Your task to perform on an android device: open chrome privacy settings Image 0: 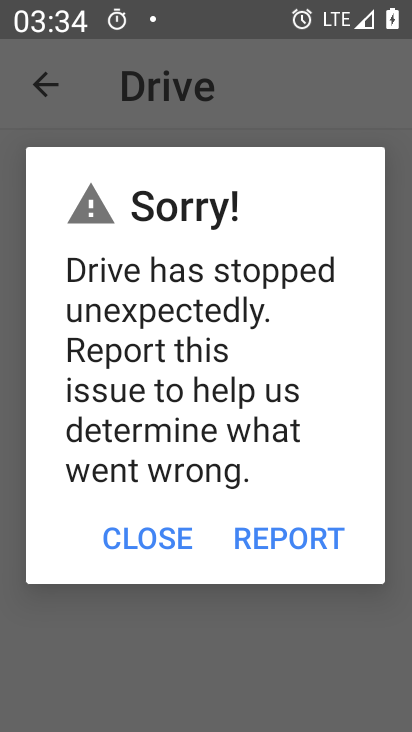
Step 0: press back button
Your task to perform on an android device: open chrome privacy settings Image 1: 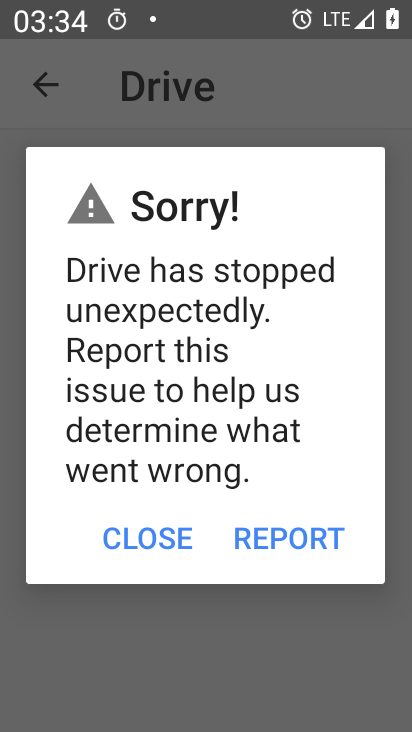
Step 1: press back button
Your task to perform on an android device: open chrome privacy settings Image 2: 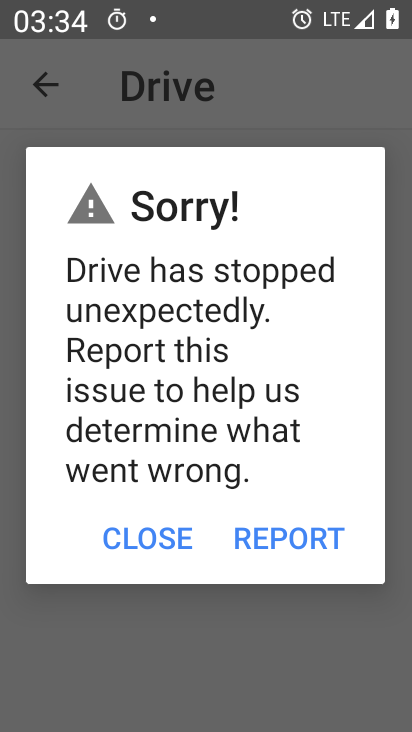
Step 2: press home button
Your task to perform on an android device: open chrome privacy settings Image 3: 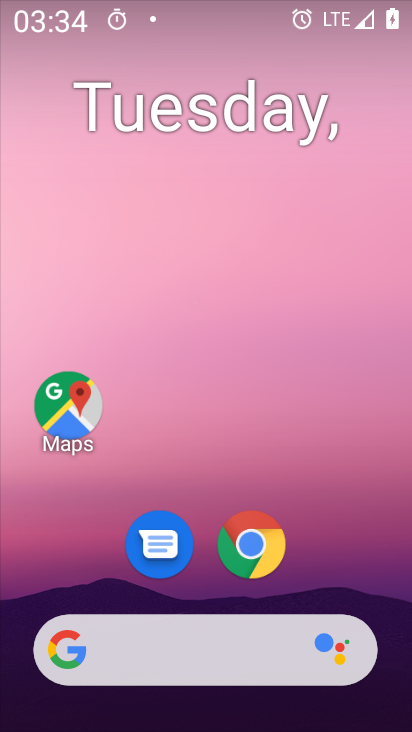
Step 3: drag from (377, 547) to (262, 15)
Your task to perform on an android device: open chrome privacy settings Image 4: 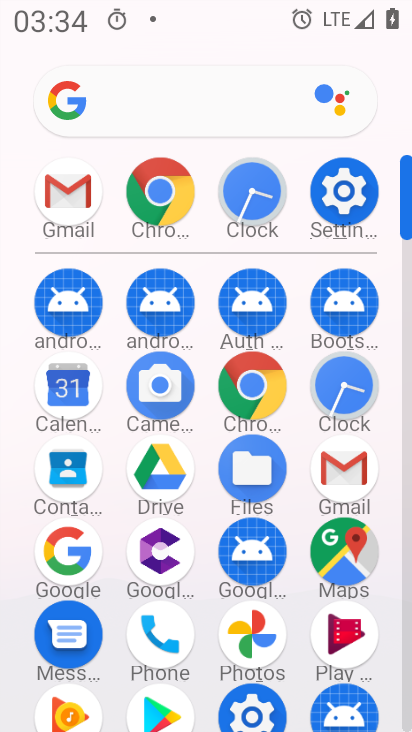
Step 4: click (154, 188)
Your task to perform on an android device: open chrome privacy settings Image 5: 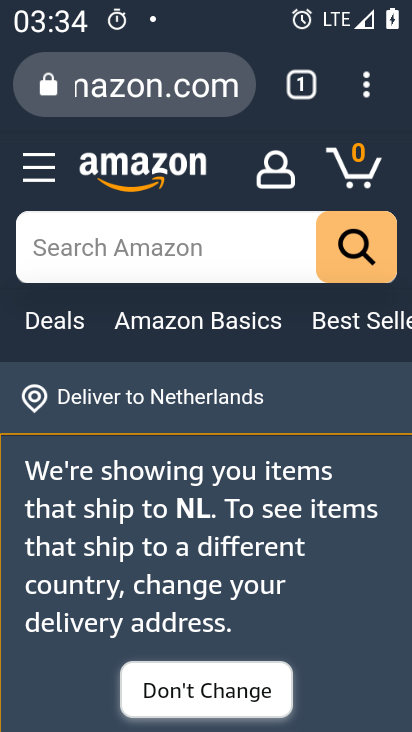
Step 5: drag from (367, 85) to (218, 587)
Your task to perform on an android device: open chrome privacy settings Image 6: 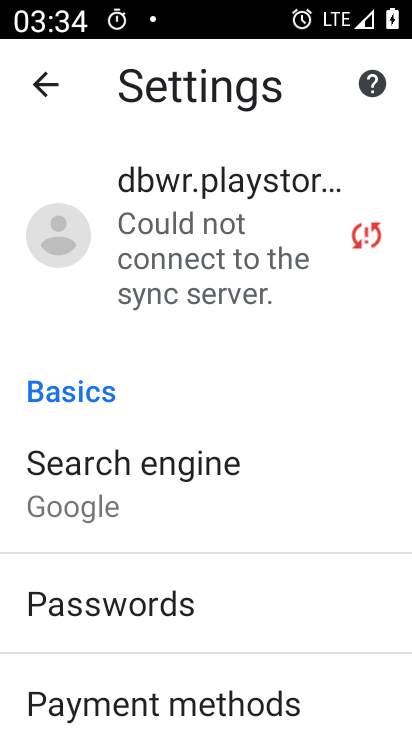
Step 6: drag from (307, 609) to (312, 234)
Your task to perform on an android device: open chrome privacy settings Image 7: 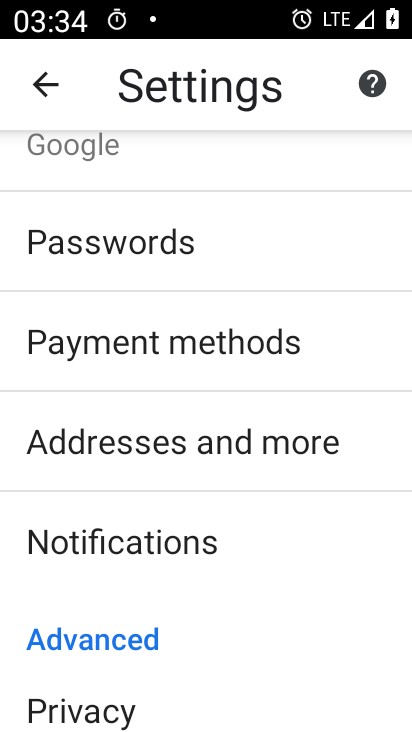
Step 7: click (154, 697)
Your task to perform on an android device: open chrome privacy settings Image 8: 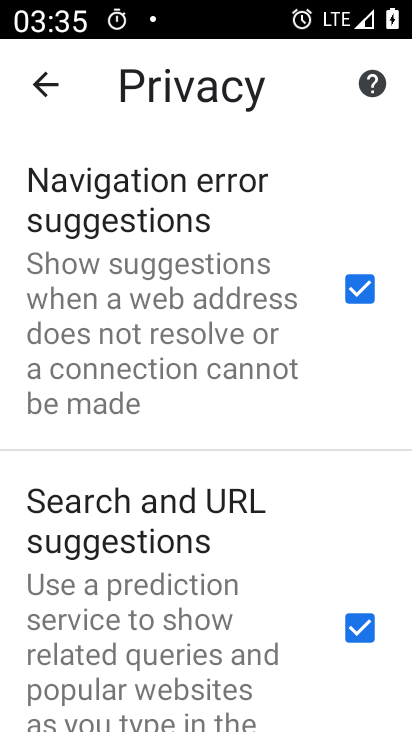
Step 8: task complete